Your task to perform on an android device: Go to Reddit.com Image 0: 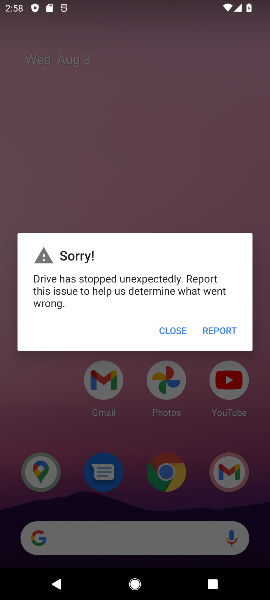
Step 0: press home button
Your task to perform on an android device: Go to Reddit.com Image 1: 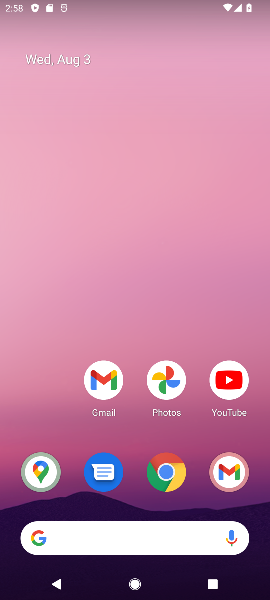
Step 1: drag from (223, 490) to (81, 21)
Your task to perform on an android device: Go to Reddit.com Image 2: 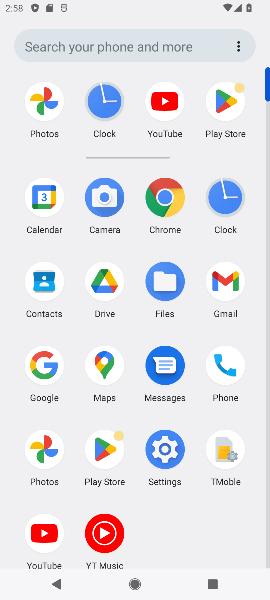
Step 2: click (39, 370)
Your task to perform on an android device: Go to Reddit.com Image 3: 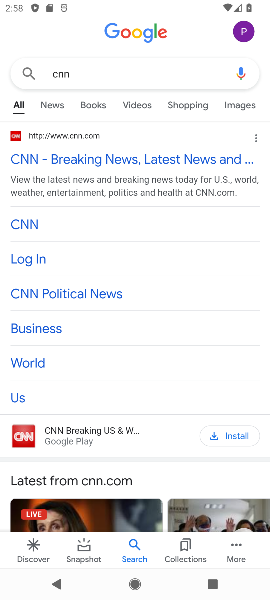
Step 3: press back button
Your task to perform on an android device: Go to Reddit.com Image 4: 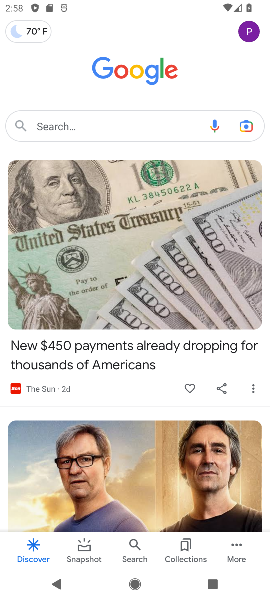
Step 4: click (46, 120)
Your task to perform on an android device: Go to Reddit.com Image 5: 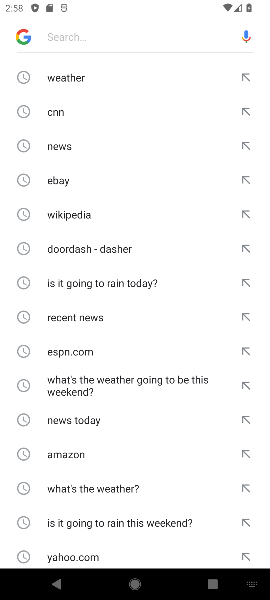
Step 5: type "Reddit.com"
Your task to perform on an android device: Go to Reddit.com Image 6: 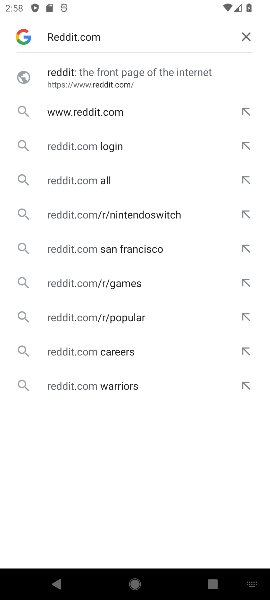
Step 6: click (66, 84)
Your task to perform on an android device: Go to Reddit.com Image 7: 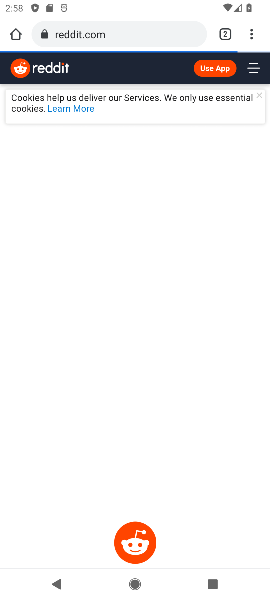
Step 7: task complete